Your task to perform on an android device: What is the news today? Image 0: 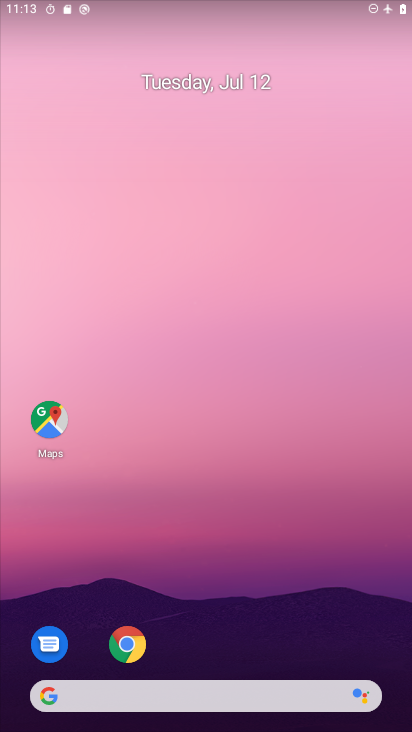
Step 0: drag from (221, 643) to (227, 200)
Your task to perform on an android device: What is the news today? Image 1: 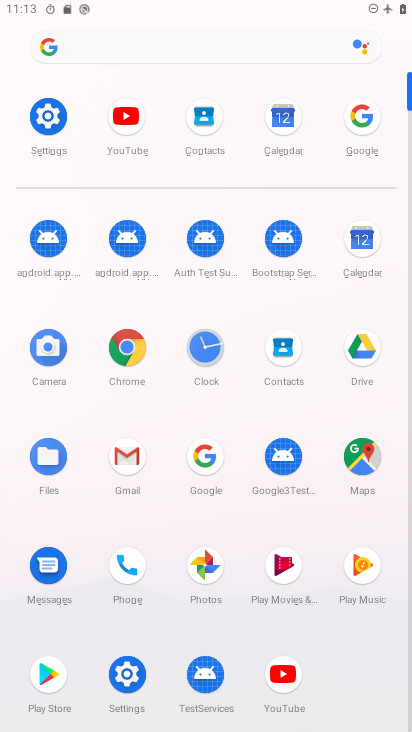
Step 1: click (187, 477)
Your task to perform on an android device: What is the news today? Image 2: 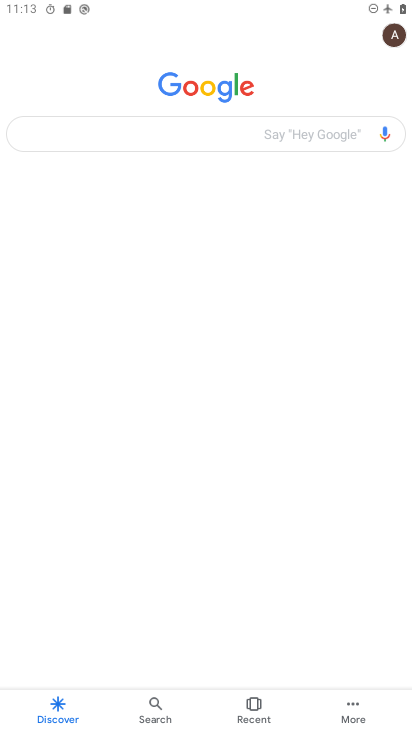
Step 2: click (155, 130)
Your task to perform on an android device: What is the news today? Image 3: 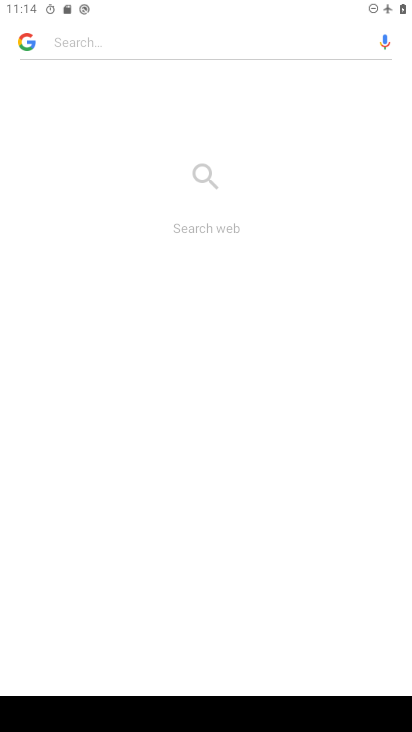
Step 3: type "news today"
Your task to perform on an android device: What is the news today? Image 4: 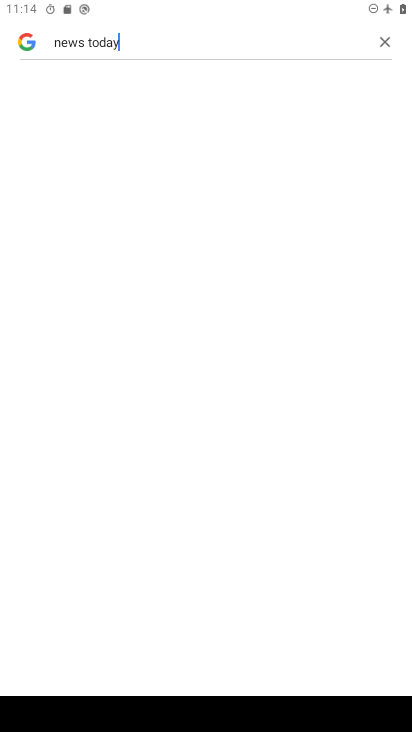
Step 4: task complete